Your task to perform on an android device: open a new tab in the chrome app Image 0: 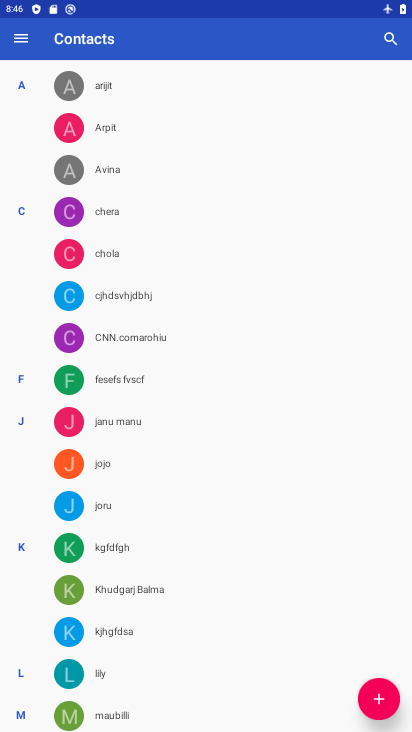
Step 0: press home button
Your task to perform on an android device: open a new tab in the chrome app Image 1: 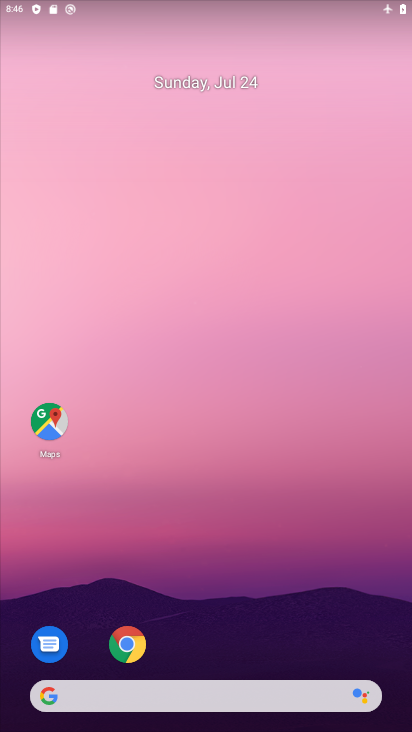
Step 1: drag from (282, 597) to (259, 76)
Your task to perform on an android device: open a new tab in the chrome app Image 2: 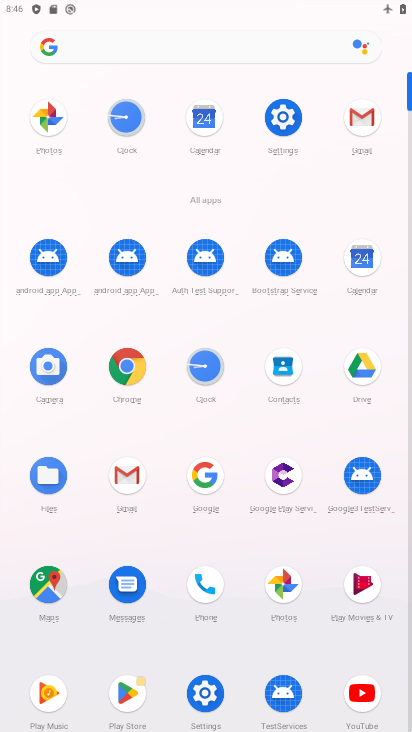
Step 2: click (110, 364)
Your task to perform on an android device: open a new tab in the chrome app Image 3: 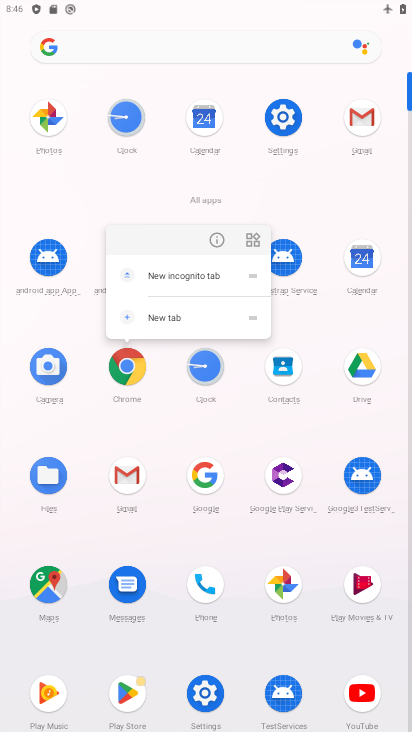
Step 3: click (125, 355)
Your task to perform on an android device: open a new tab in the chrome app Image 4: 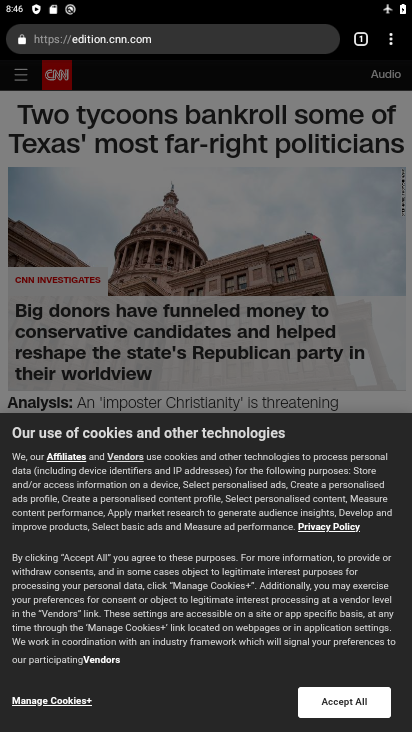
Step 4: task complete